Your task to perform on an android device: turn on the 12-hour format for clock Image 0: 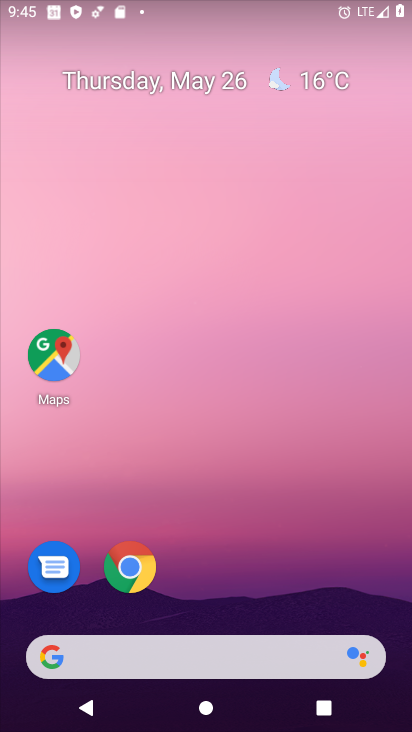
Step 0: drag from (385, 647) to (363, 158)
Your task to perform on an android device: turn on the 12-hour format for clock Image 1: 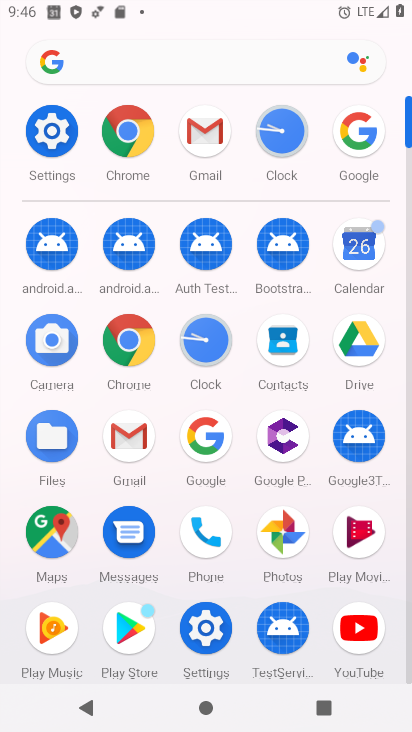
Step 1: click (207, 336)
Your task to perform on an android device: turn on the 12-hour format for clock Image 2: 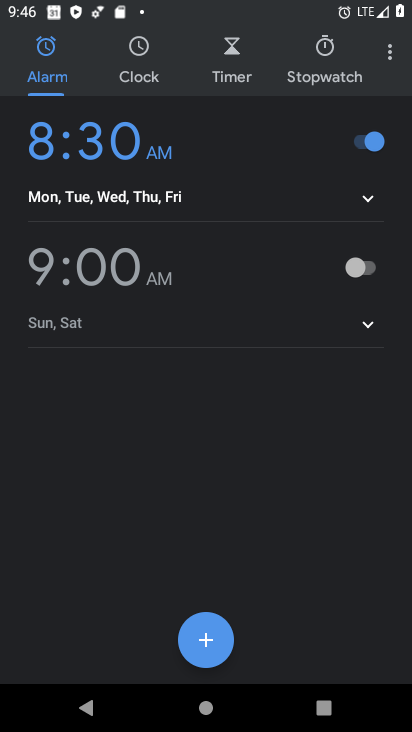
Step 2: click (389, 51)
Your task to perform on an android device: turn on the 12-hour format for clock Image 3: 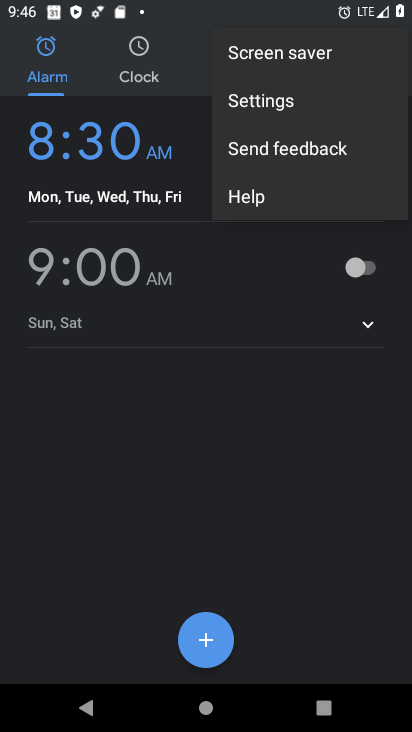
Step 3: click (265, 99)
Your task to perform on an android device: turn on the 12-hour format for clock Image 4: 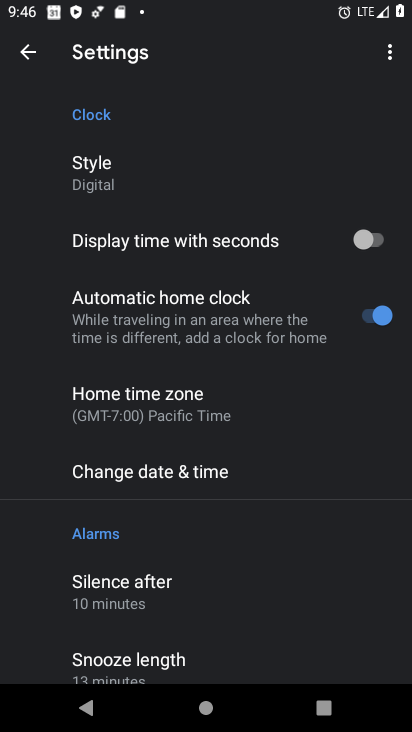
Step 4: click (110, 481)
Your task to perform on an android device: turn on the 12-hour format for clock Image 5: 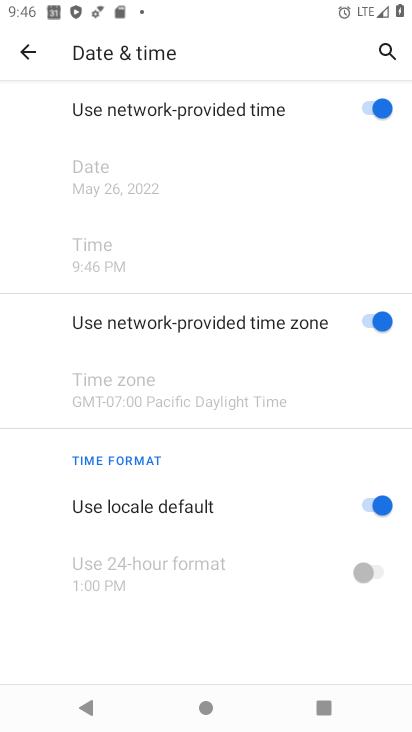
Step 5: task complete